Your task to perform on an android device: turn off picture-in-picture Image 0: 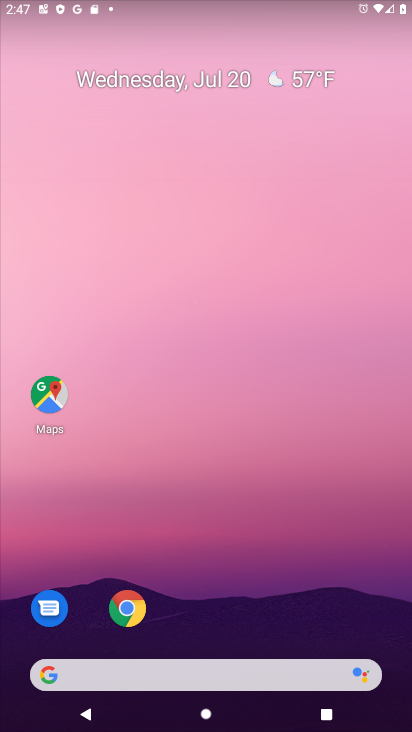
Step 0: drag from (168, 605) to (157, 198)
Your task to perform on an android device: turn off picture-in-picture Image 1: 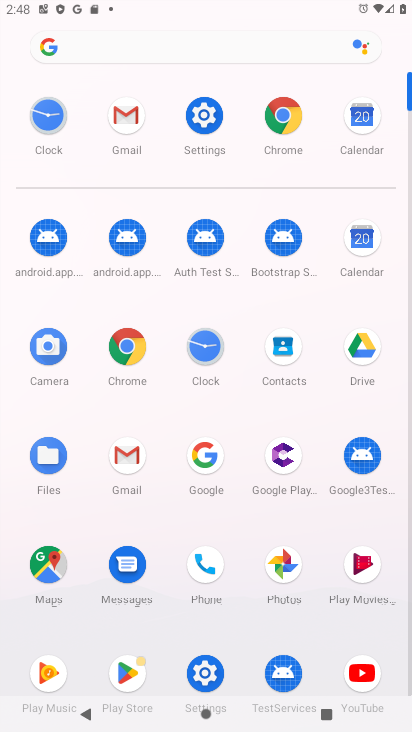
Step 1: click (201, 133)
Your task to perform on an android device: turn off picture-in-picture Image 2: 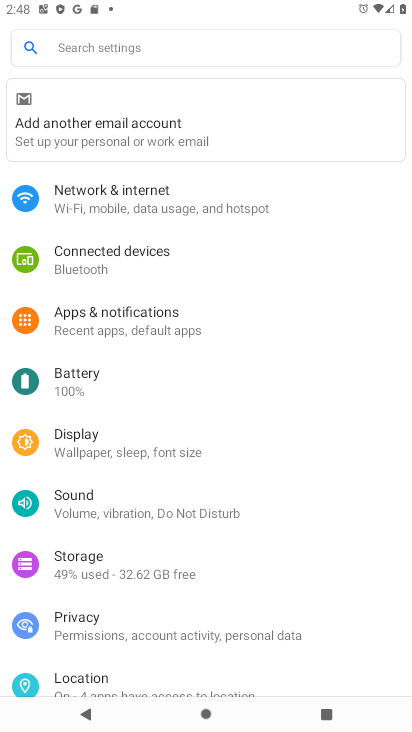
Step 2: click (134, 309)
Your task to perform on an android device: turn off picture-in-picture Image 3: 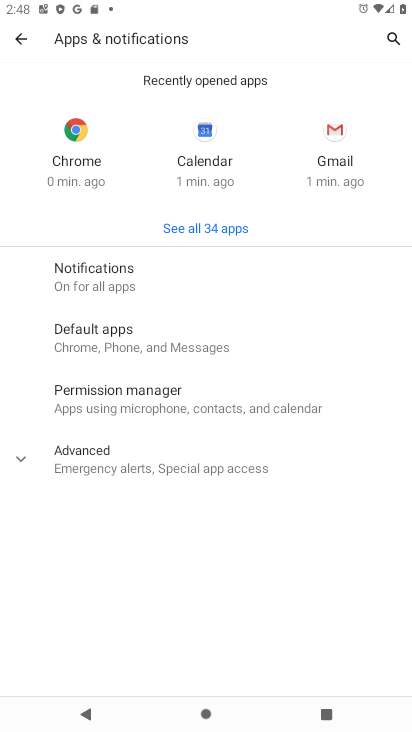
Step 3: click (100, 466)
Your task to perform on an android device: turn off picture-in-picture Image 4: 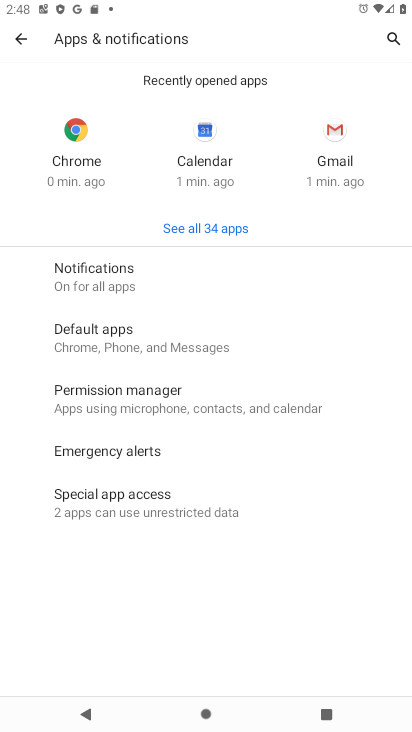
Step 4: click (87, 492)
Your task to perform on an android device: turn off picture-in-picture Image 5: 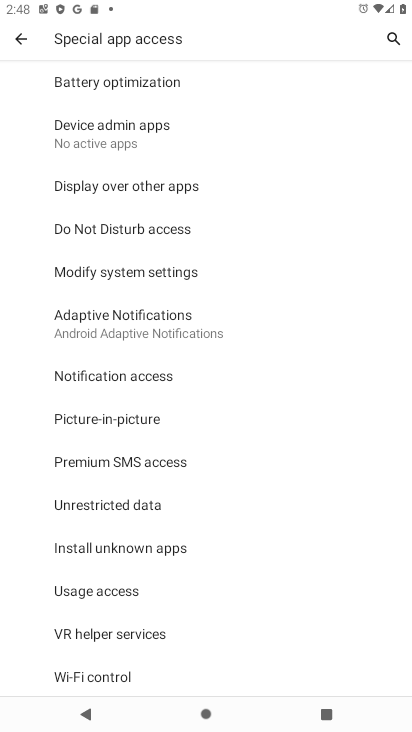
Step 5: click (90, 422)
Your task to perform on an android device: turn off picture-in-picture Image 6: 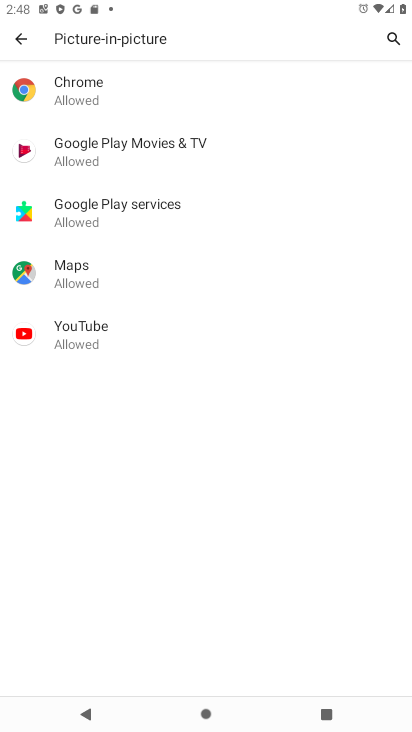
Step 6: click (75, 107)
Your task to perform on an android device: turn off picture-in-picture Image 7: 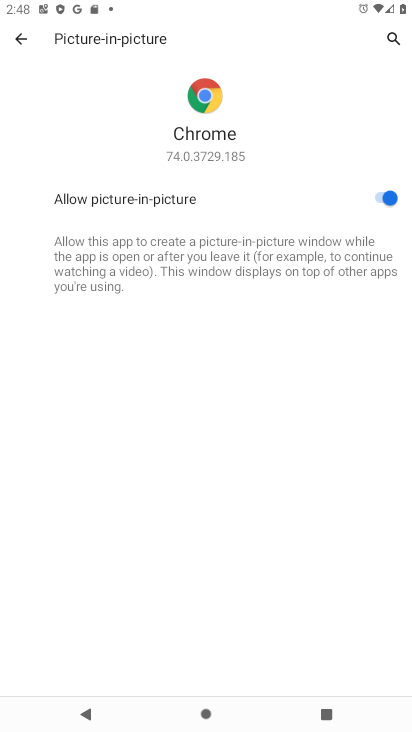
Step 7: click (378, 200)
Your task to perform on an android device: turn off picture-in-picture Image 8: 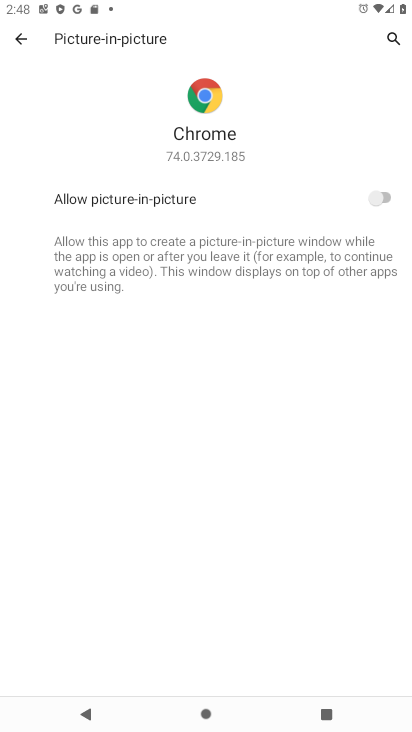
Step 8: task complete